Your task to perform on an android device: Open Chrome and go to the settings page Image 0: 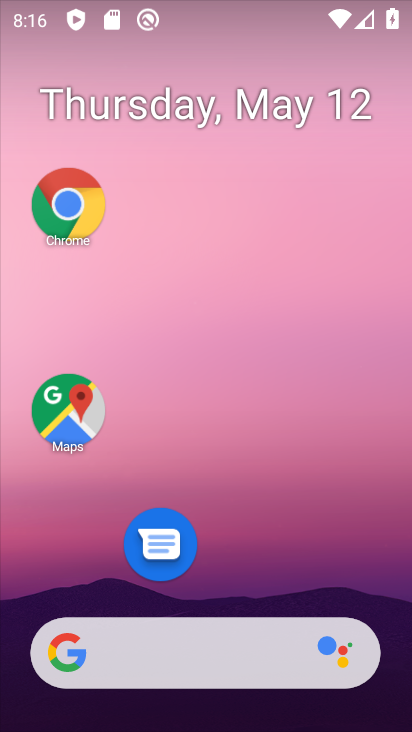
Step 0: click (90, 215)
Your task to perform on an android device: Open Chrome and go to the settings page Image 1: 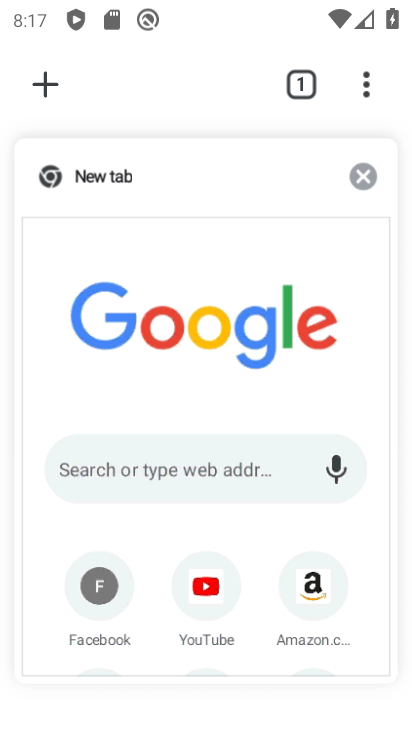
Step 1: click (151, 243)
Your task to perform on an android device: Open Chrome and go to the settings page Image 2: 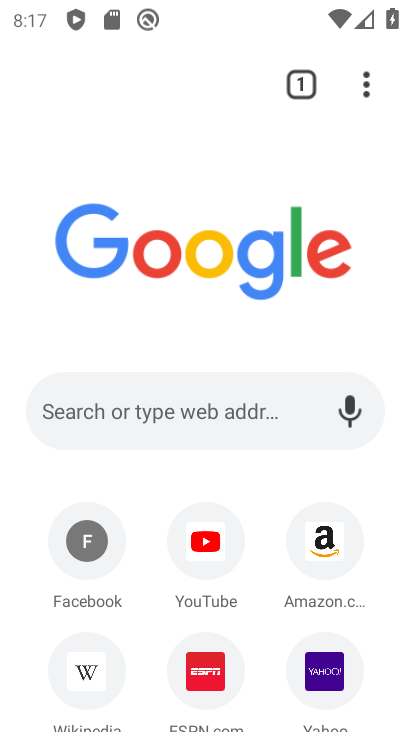
Step 2: click (366, 83)
Your task to perform on an android device: Open Chrome and go to the settings page Image 3: 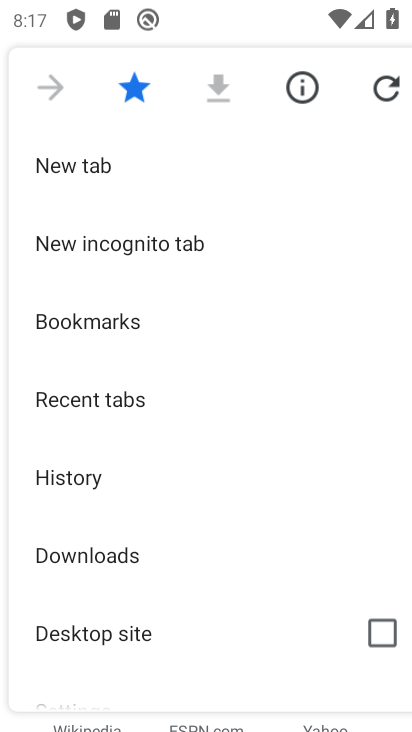
Step 3: drag from (224, 593) to (192, 112)
Your task to perform on an android device: Open Chrome and go to the settings page Image 4: 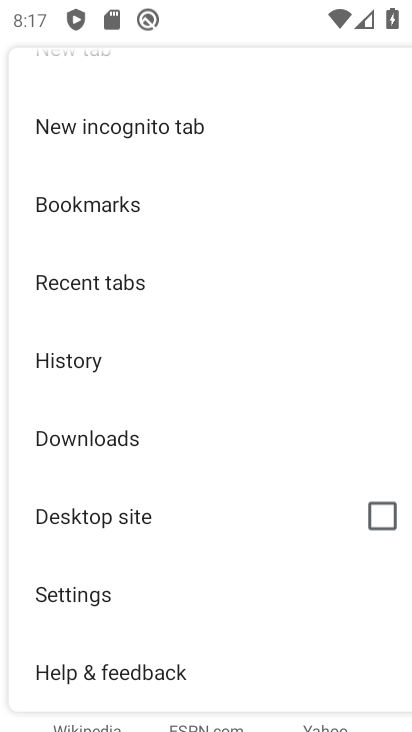
Step 4: click (78, 607)
Your task to perform on an android device: Open Chrome and go to the settings page Image 5: 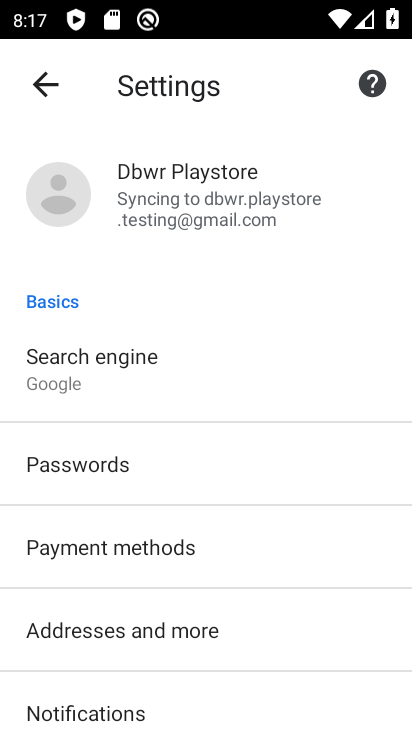
Step 5: task complete